Your task to perform on an android device: show emergency info Image 0: 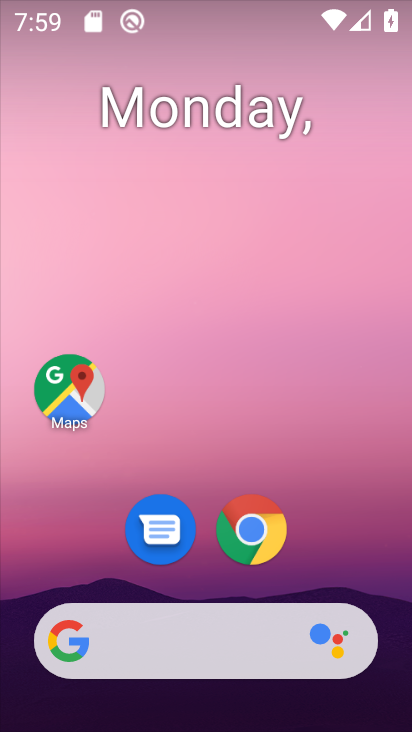
Step 0: drag from (164, 596) to (222, 160)
Your task to perform on an android device: show emergency info Image 1: 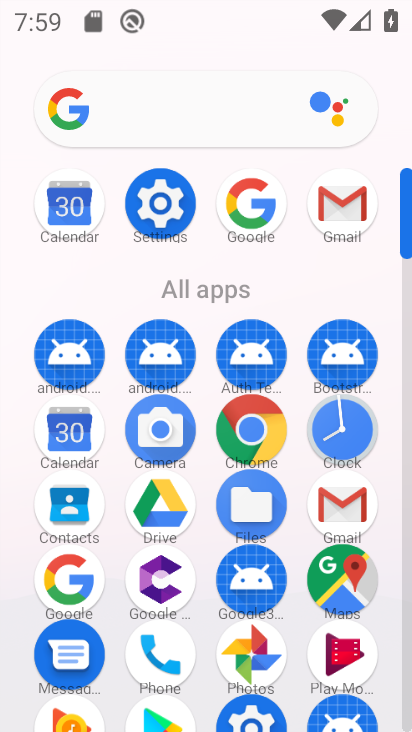
Step 1: click (161, 216)
Your task to perform on an android device: show emergency info Image 2: 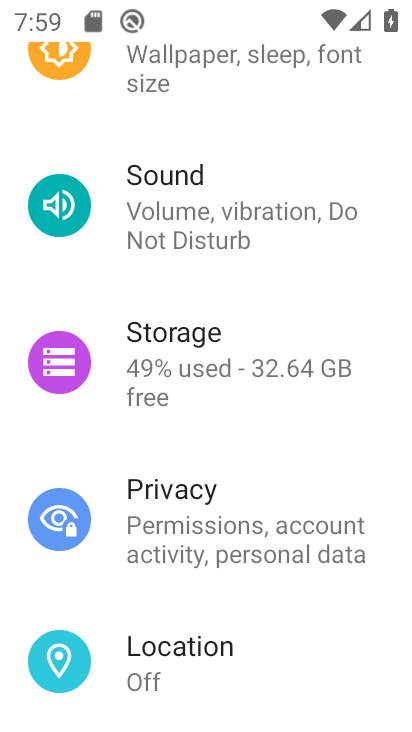
Step 2: drag from (215, 689) to (290, 235)
Your task to perform on an android device: show emergency info Image 3: 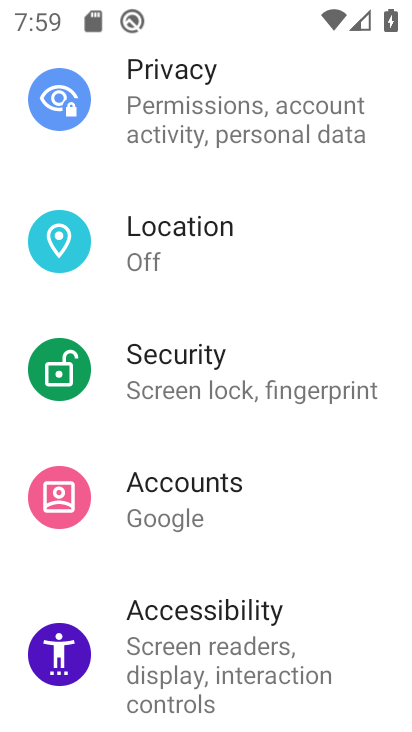
Step 3: click (244, 671)
Your task to perform on an android device: show emergency info Image 4: 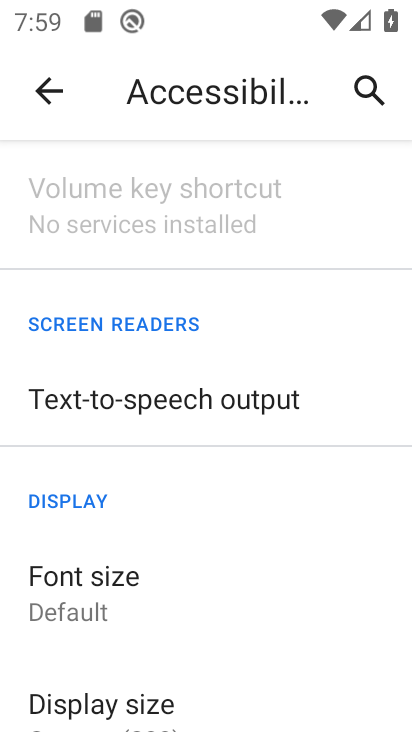
Step 4: press home button
Your task to perform on an android device: show emergency info Image 5: 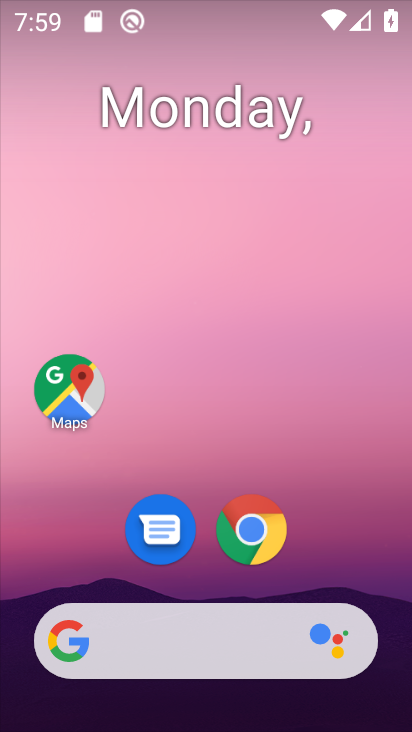
Step 5: drag from (190, 599) to (197, 220)
Your task to perform on an android device: show emergency info Image 6: 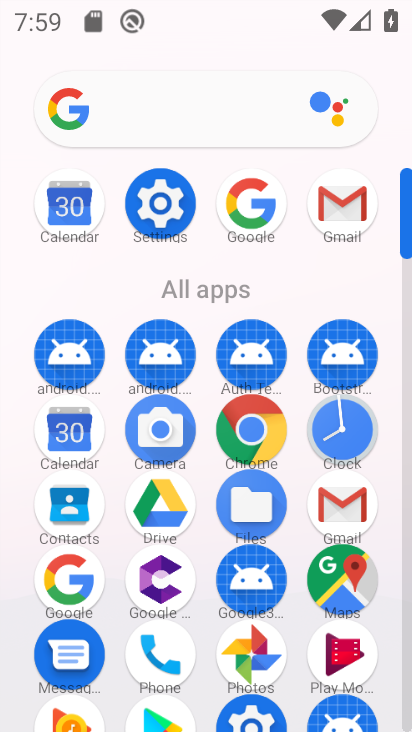
Step 6: click (165, 188)
Your task to perform on an android device: show emergency info Image 7: 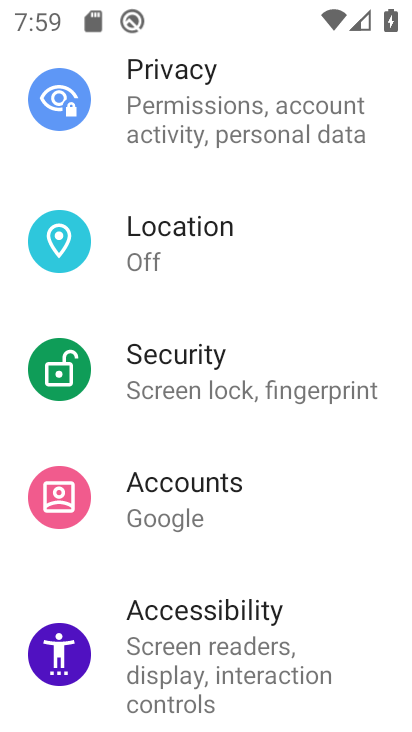
Step 7: drag from (217, 641) to (223, 241)
Your task to perform on an android device: show emergency info Image 8: 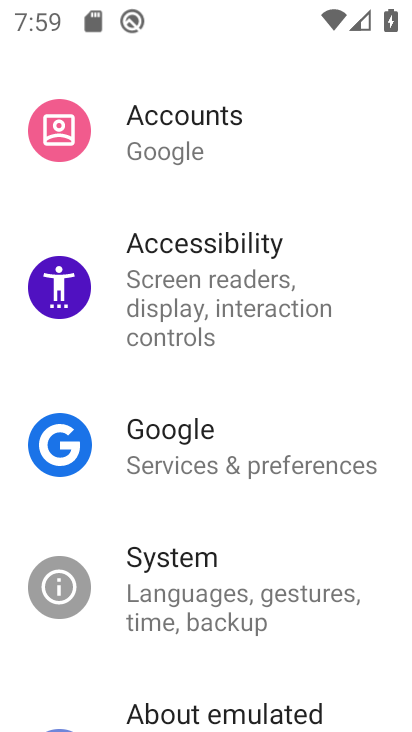
Step 8: drag from (181, 687) to (224, 301)
Your task to perform on an android device: show emergency info Image 9: 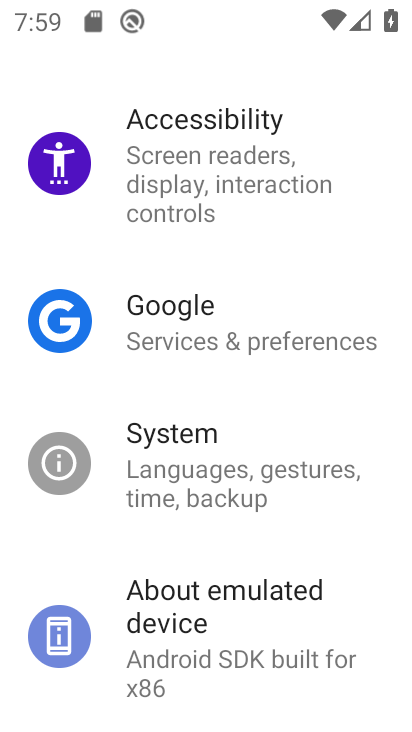
Step 9: click (241, 607)
Your task to perform on an android device: show emergency info Image 10: 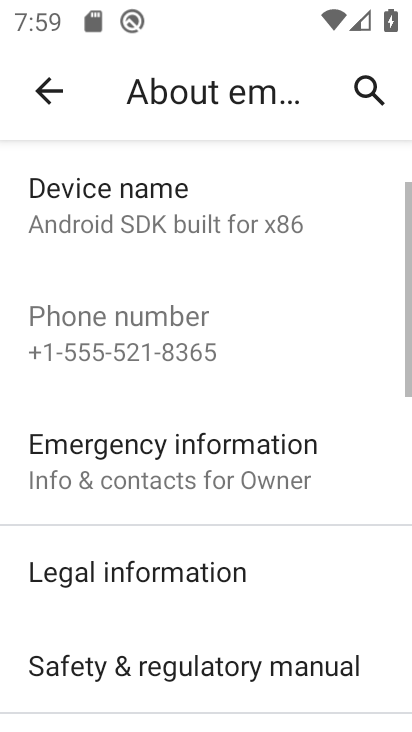
Step 10: click (118, 465)
Your task to perform on an android device: show emergency info Image 11: 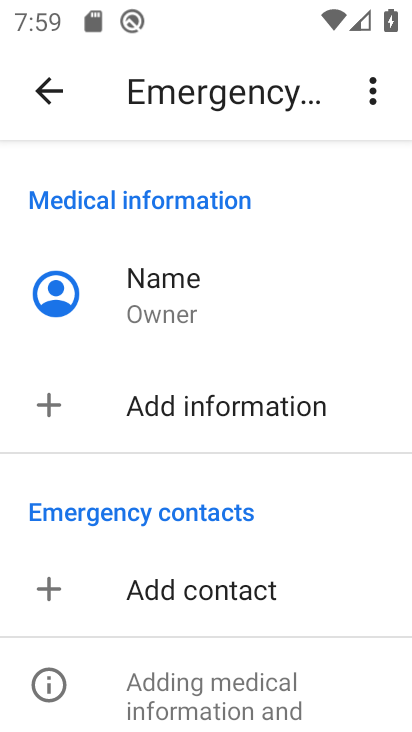
Step 11: task complete